Your task to perform on an android device: Check the news Image 0: 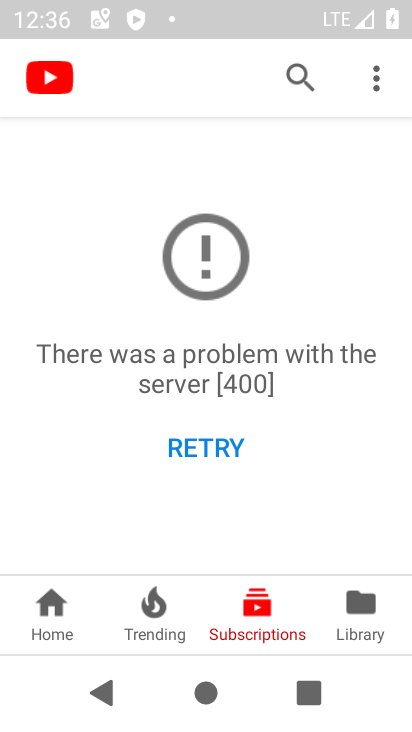
Step 0: press home button
Your task to perform on an android device: Check the news Image 1: 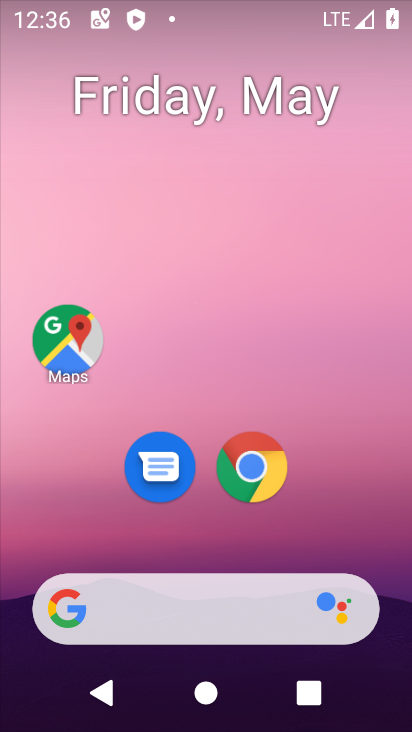
Step 1: drag from (334, 518) to (245, 114)
Your task to perform on an android device: Check the news Image 2: 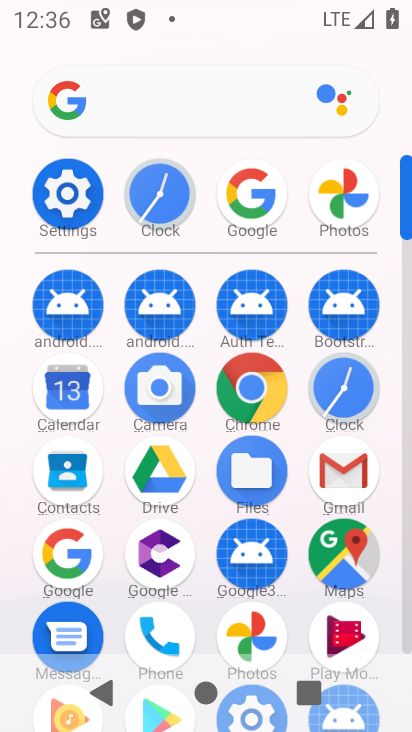
Step 2: click (244, 192)
Your task to perform on an android device: Check the news Image 3: 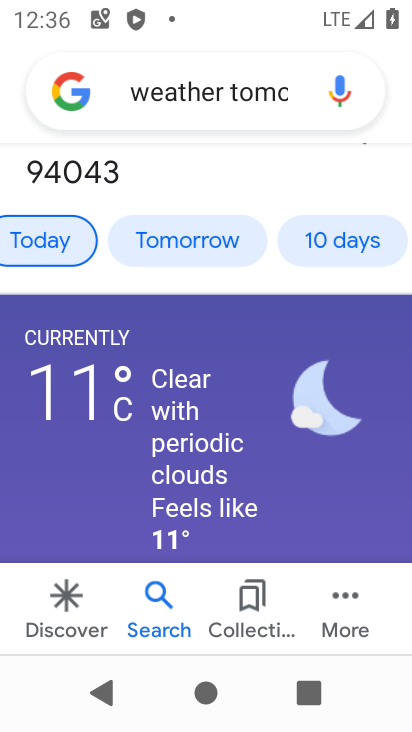
Step 3: click (262, 104)
Your task to perform on an android device: Check the news Image 4: 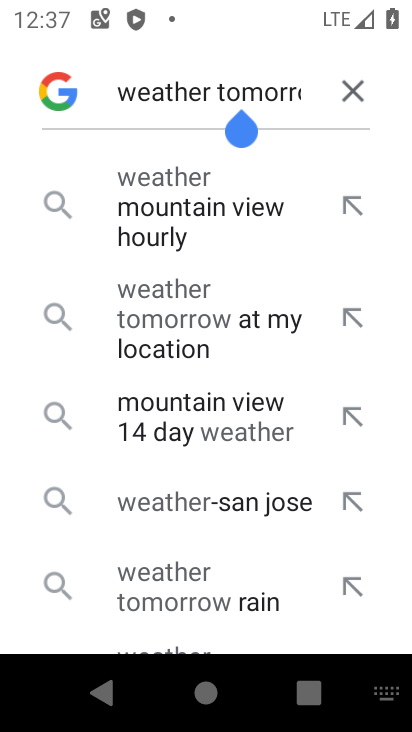
Step 4: click (358, 85)
Your task to perform on an android device: Check the news Image 5: 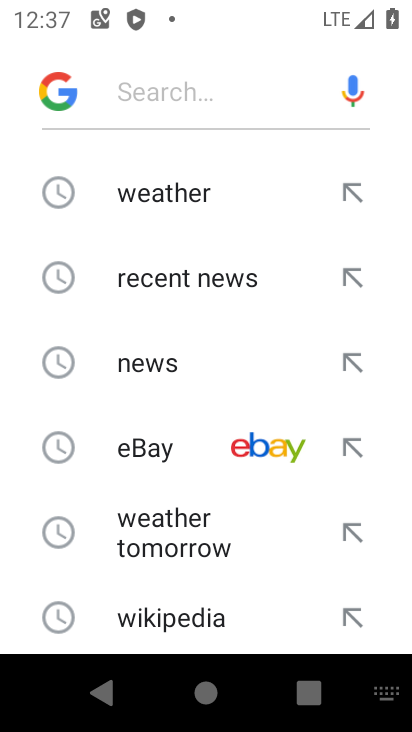
Step 5: click (163, 374)
Your task to perform on an android device: Check the news Image 6: 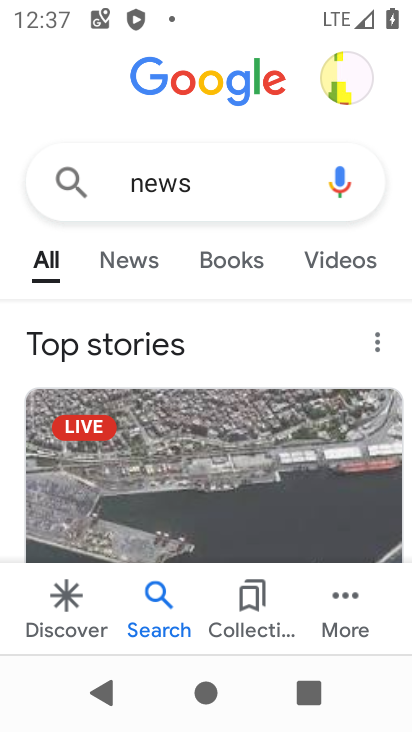
Step 6: task complete